Your task to perform on an android device: Go to Yahoo.com Image 0: 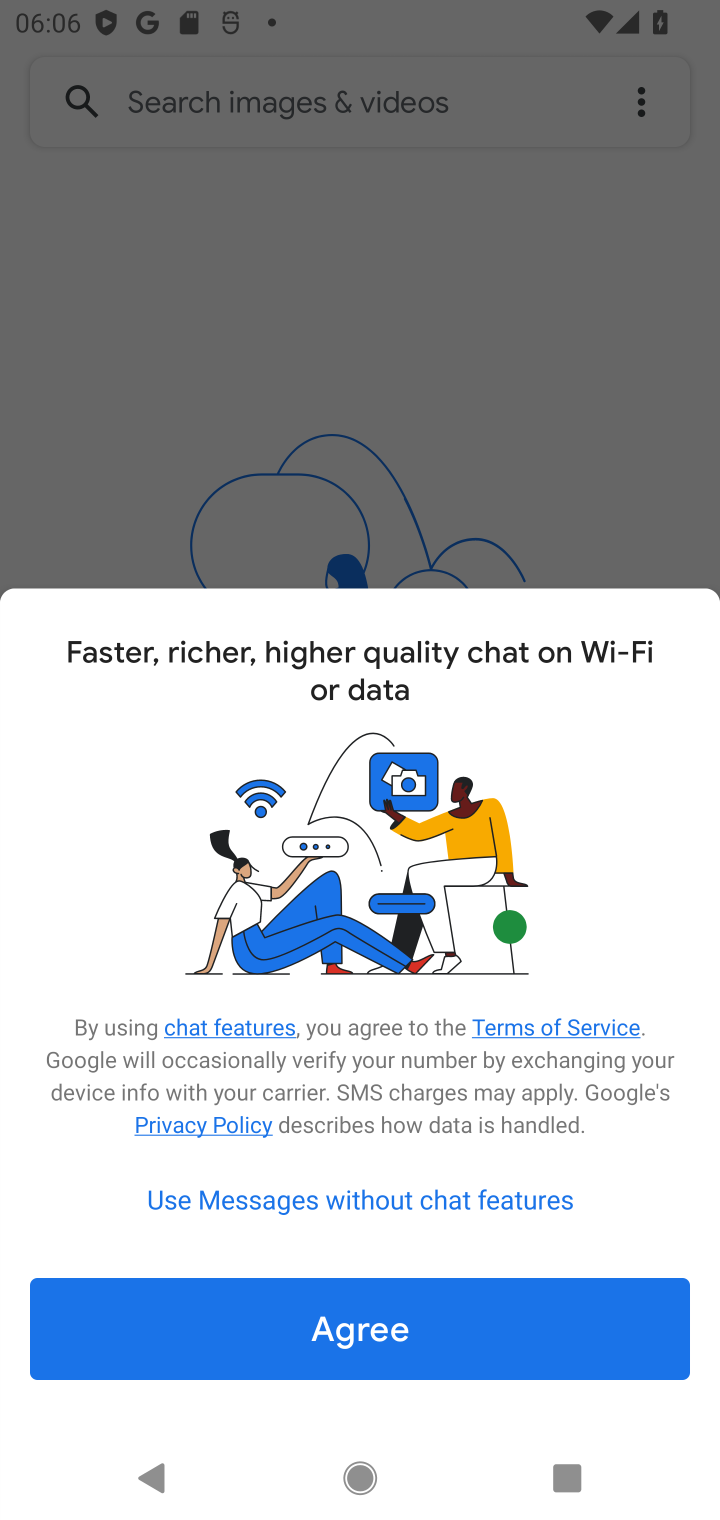
Step 0: press home button
Your task to perform on an android device: Go to Yahoo.com Image 1: 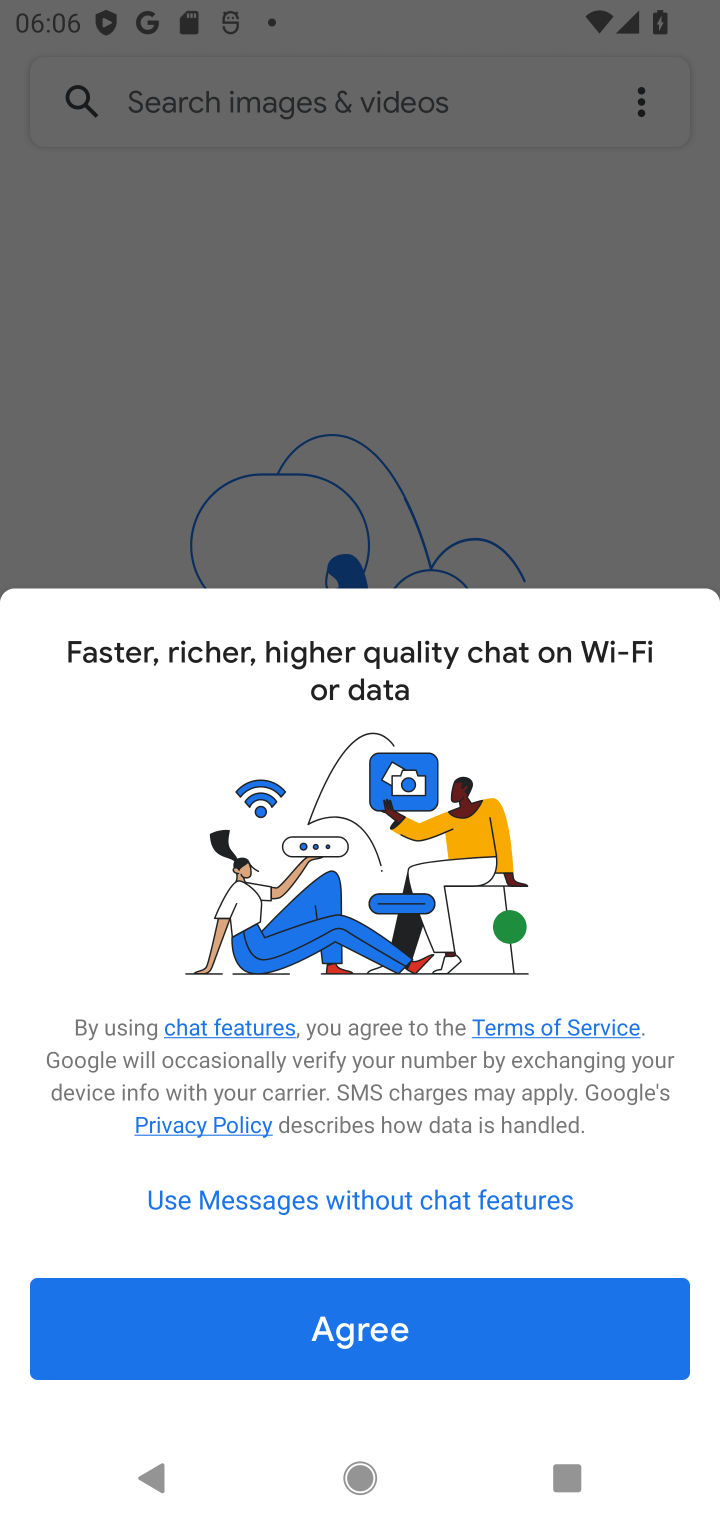
Step 1: press home button
Your task to perform on an android device: Go to Yahoo.com Image 2: 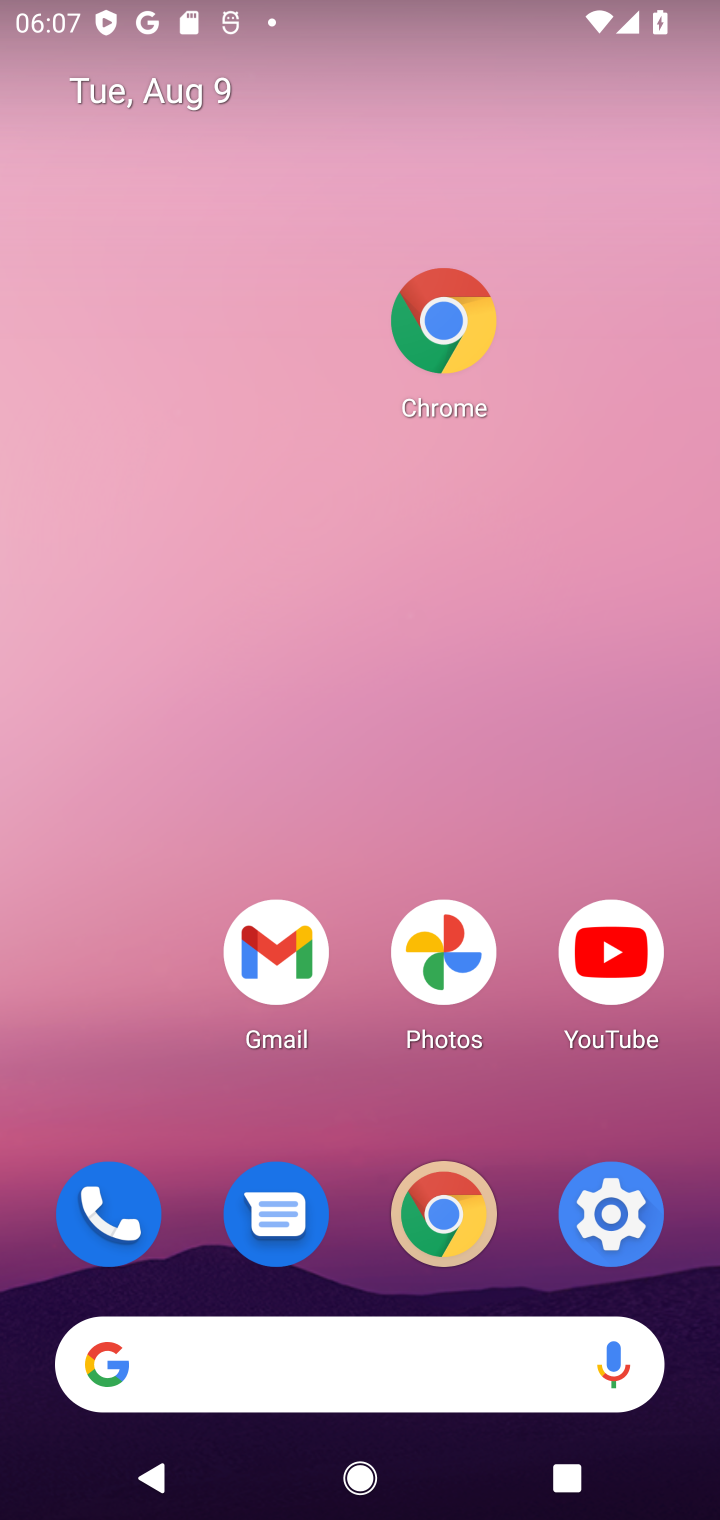
Step 2: click (451, 1230)
Your task to perform on an android device: Go to Yahoo.com Image 3: 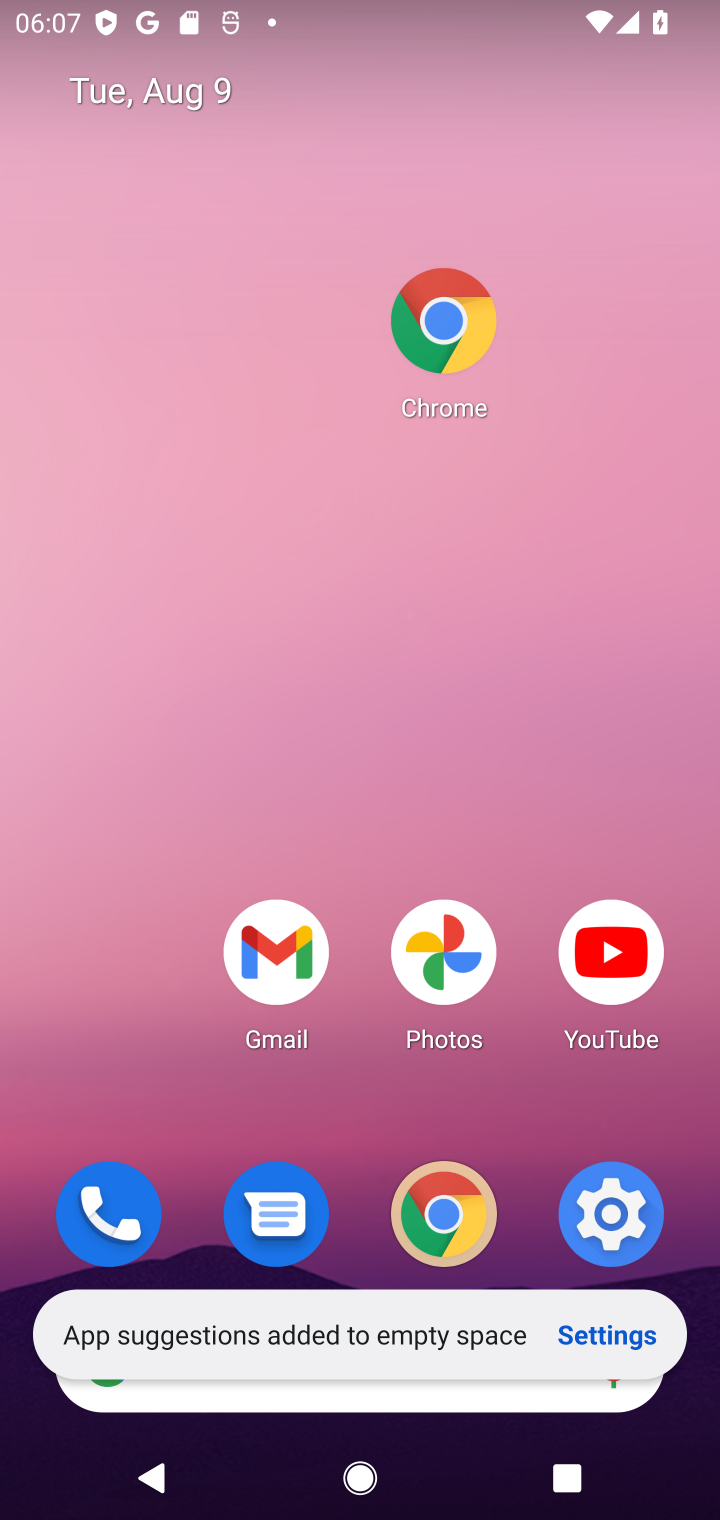
Step 3: click (423, 1242)
Your task to perform on an android device: Go to Yahoo.com Image 4: 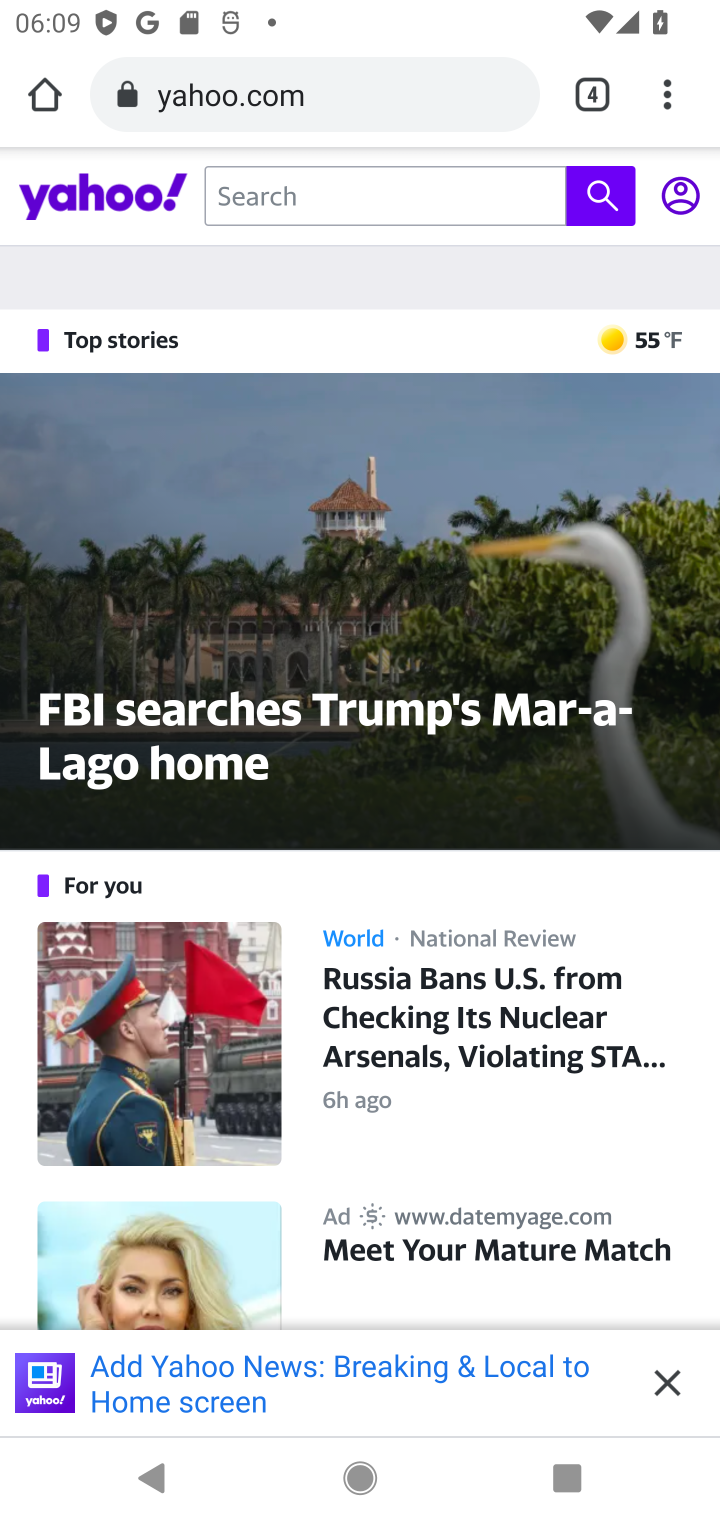
Step 4: task complete